Your task to perform on an android device: Set the phone to "Do not disturb". Image 0: 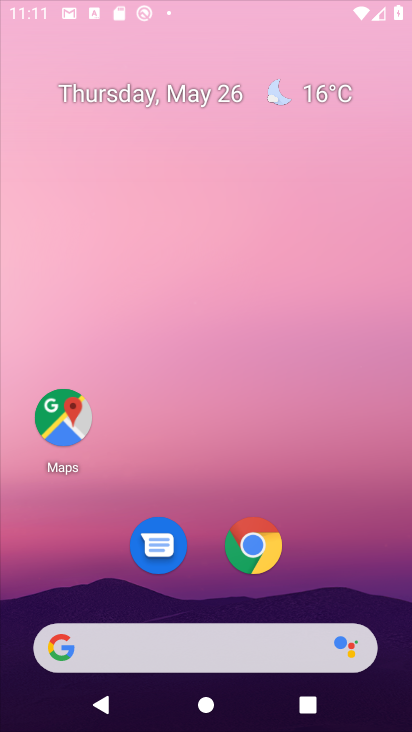
Step 0: press home button
Your task to perform on an android device: Set the phone to "Do not disturb". Image 1: 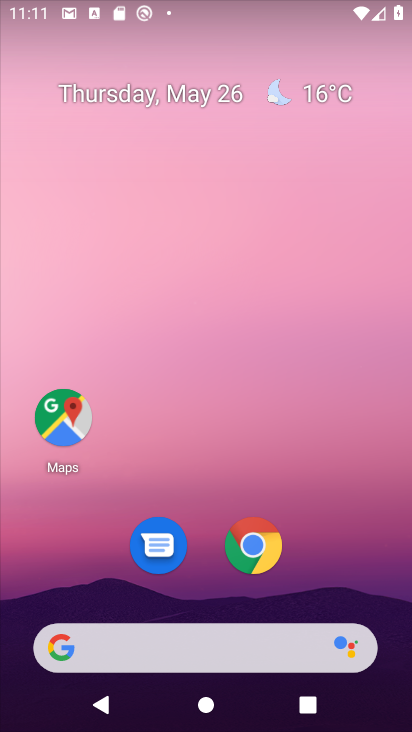
Step 1: drag from (168, 7) to (205, 464)
Your task to perform on an android device: Set the phone to "Do not disturb". Image 2: 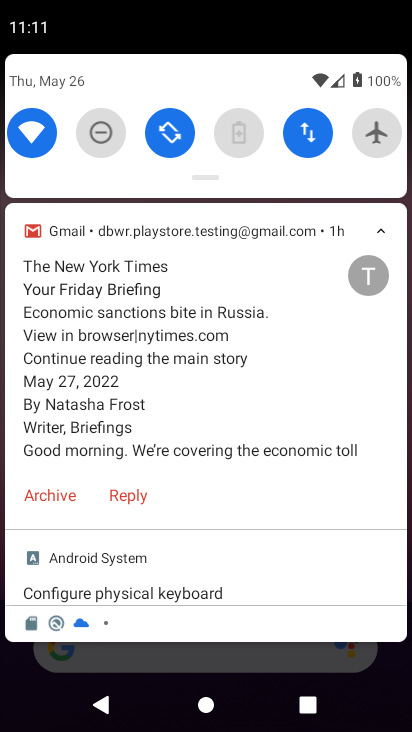
Step 2: drag from (215, 197) to (240, 623)
Your task to perform on an android device: Set the phone to "Do not disturb". Image 3: 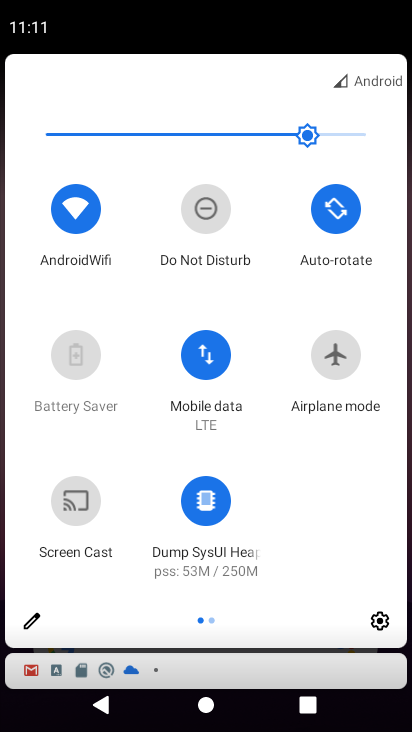
Step 3: click (195, 214)
Your task to perform on an android device: Set the phone to "Do not disturb". Image 4: 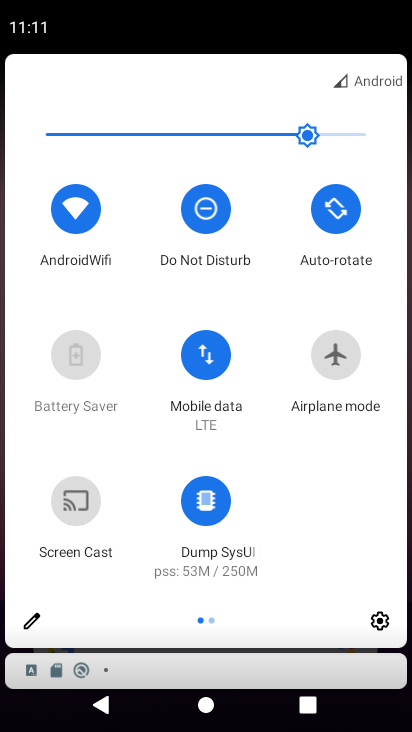
Step 4: task complete